Your task to perform on an android device: empty trash in google photos Image 0: 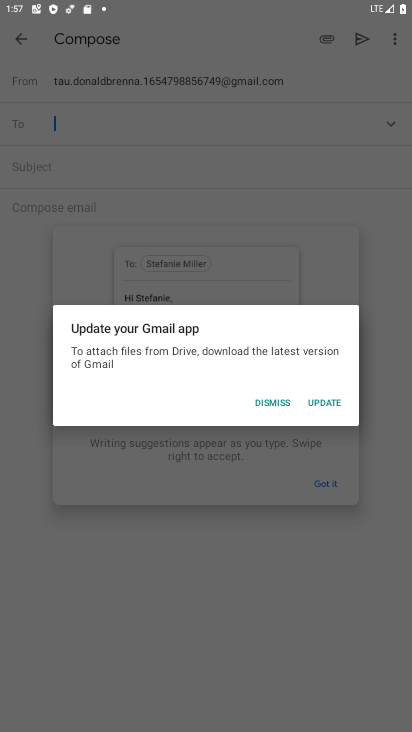
Step 0: press home button
Your task to perform on an android device: empty trash in google photos Image 1: 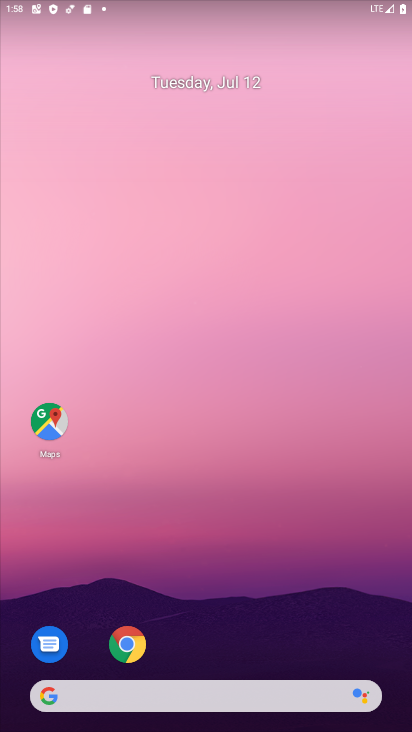
Step 1: drag from (200, 660) to (172, 112)
Your task to perform on an android device: empty trash in google photos Image 2: 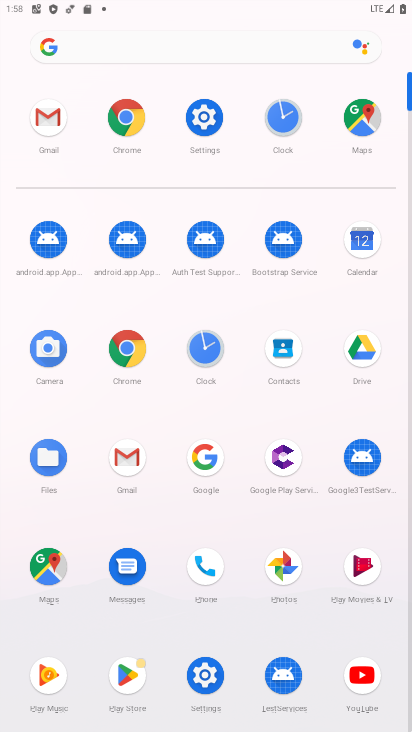
Step 2: click (290, 563)
Your task to perform on an android device: empty trash in google photos Image 3: 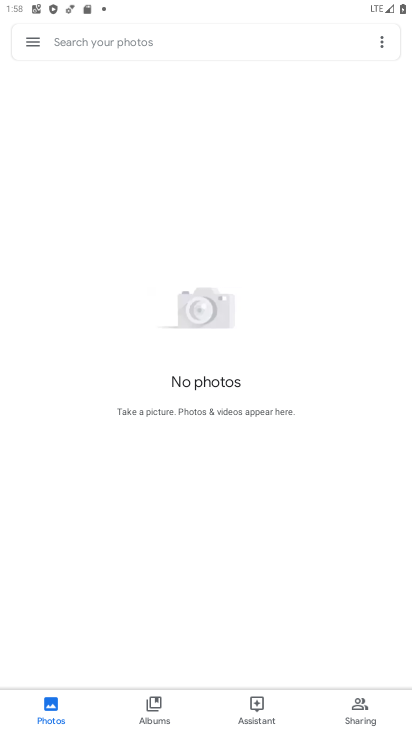
Step 3: click (21, 37)
Your task to perform on an android device: empty trash in google photos Image 4: 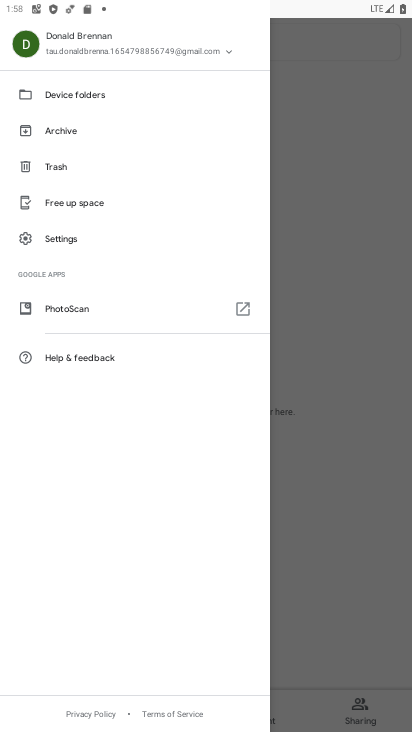
Step 4: click (63, 170)
Your task to perform on an android device: empty trash in google photos Image 5: 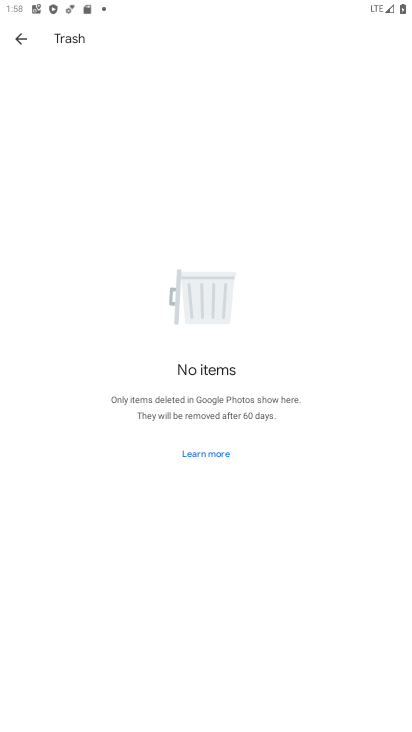
Step 5: task complete